Your task to perform on an android device: Open the map Image 0: 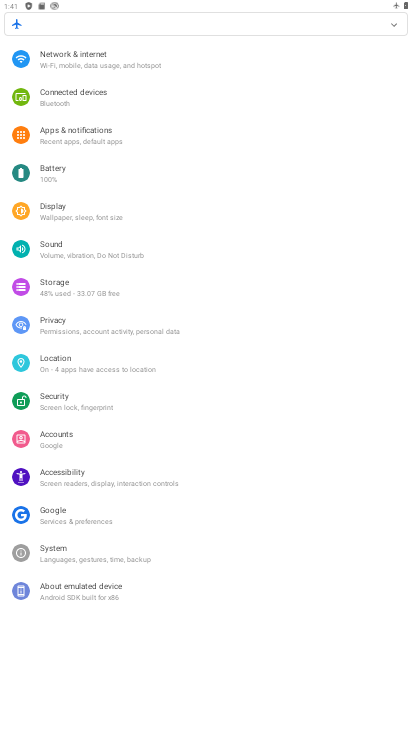
Step 0: press home button
Your task to perform on an android device: Open the map Image 1: 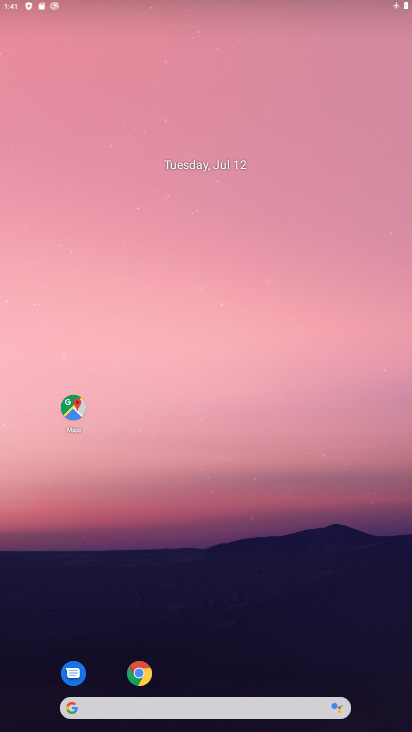
Step 1: drag from (117, 609) to (124, 261)
Your task to perform on an android device: Open the map Image 2: 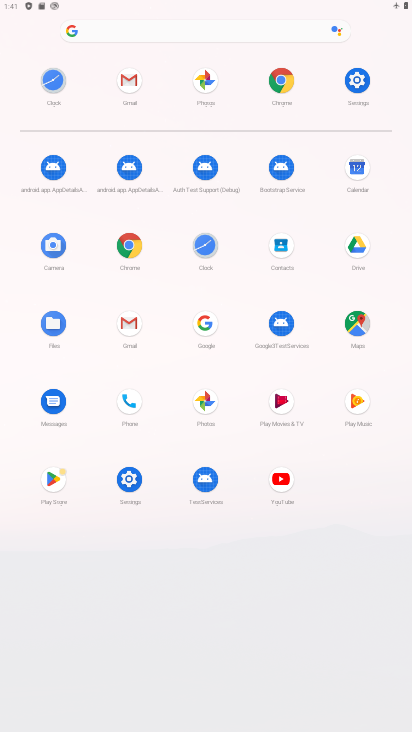
Step 2: click (352, 311)
Your task to perform on an android device: Open the map Image 3: 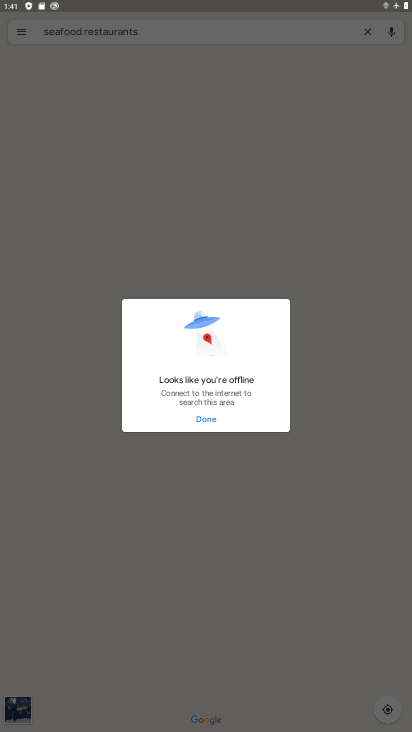
Step 3: click (189, 415)
Your task to perform on an android device: Open the map Image 4: 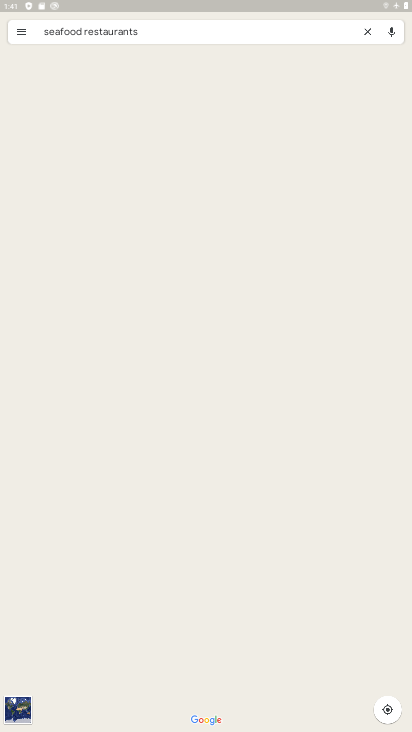
Step 4: task complete